Your task to perform on an android device: delete browsing data in the chrome app Image 0: 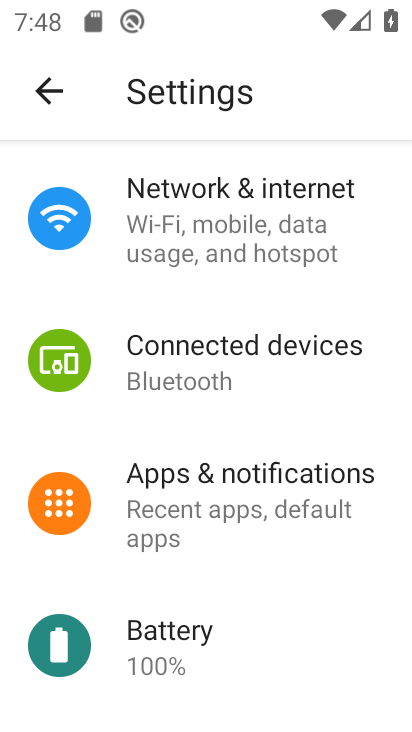
Step 0: press home button
Your task to perform on an android device: delete browsing data in the chrome app Image 1: 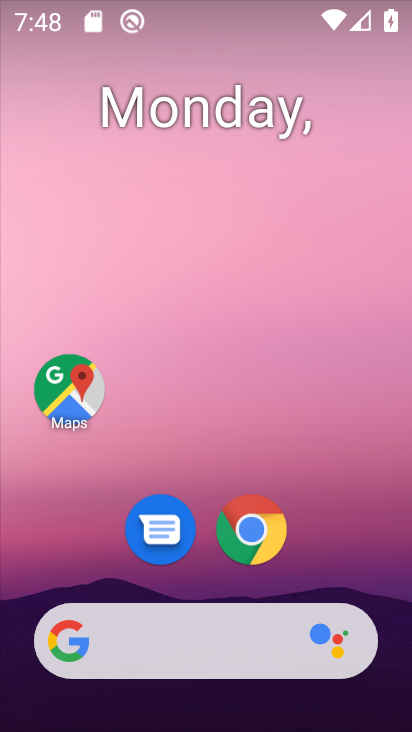
Step 1: click (258, 533)
Your task to perform on an android device: delete browsing data in the chrome app Image 2: 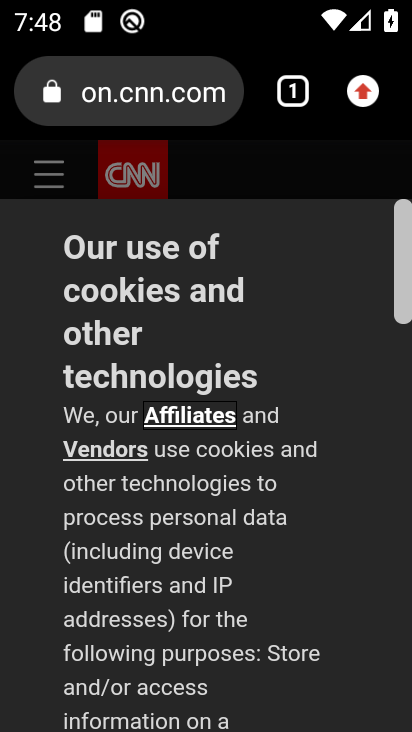
Step 2: click (362, 78)
Your task to perform on an android device: delete browsing data in the chrome app Image 3: 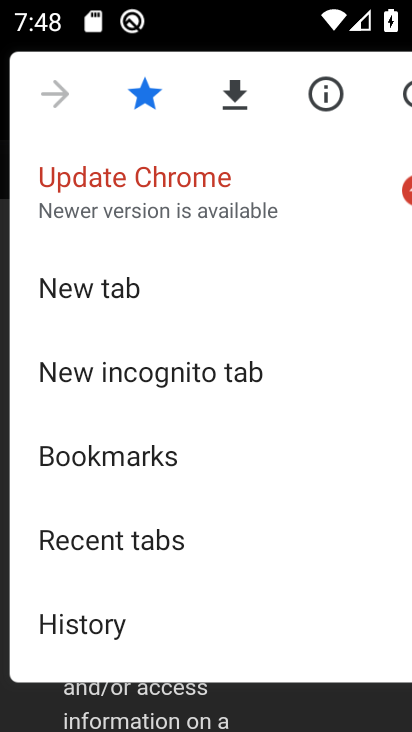
Step 3: click (81, 632)
Your task to perform on an android device: delete browsing data in the chrome app Image 4: 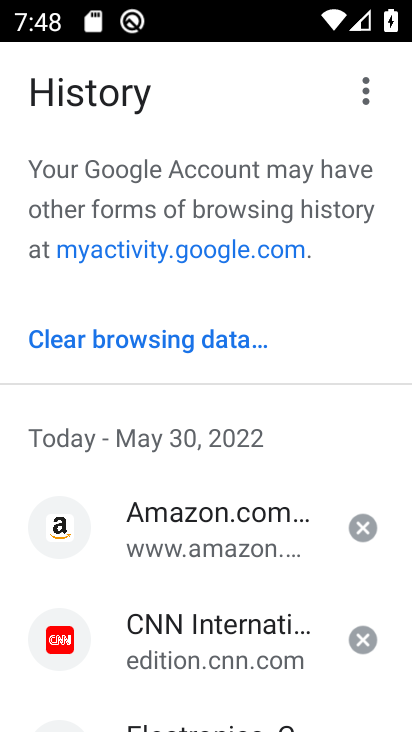
Step 4: click (148, 336)
Your task to perform on an android device: delete browsing data in the chrome app Image 5: 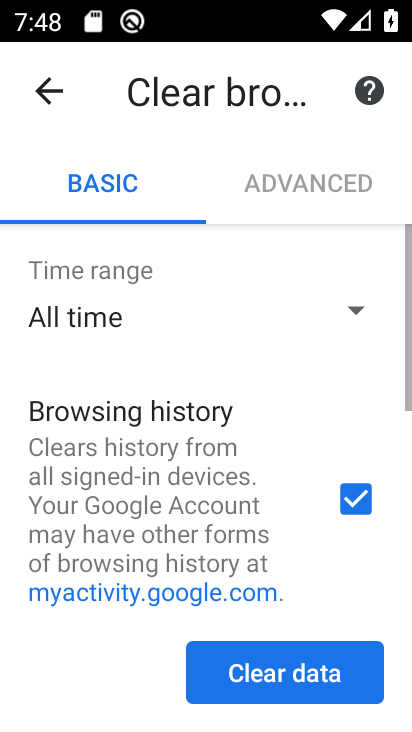
Step 5: click (267, 666)
Your task to perform on an android device: delete browsing data in the chrome app Image 6: 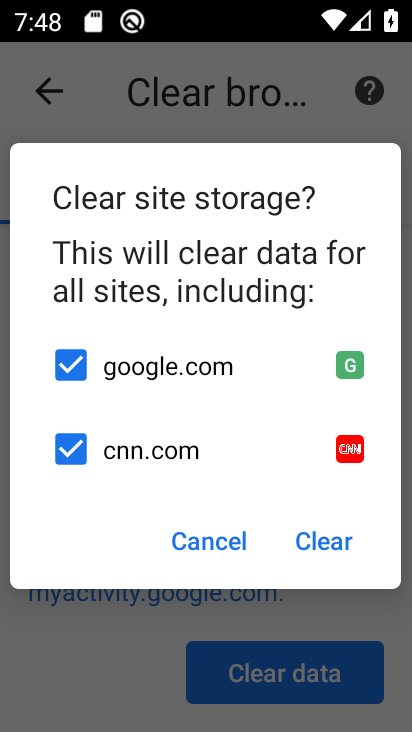
Step 6: click (327, 542)
Your task to perform on an android device: delete browsing data in the chrome app Image 7: 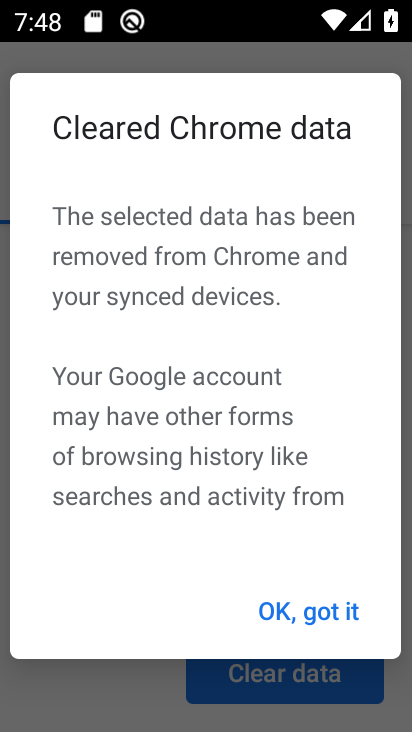
Step 7: click (331, 615)
Your task to perform on an android device: delete browsing data in the chrome app Image 8: 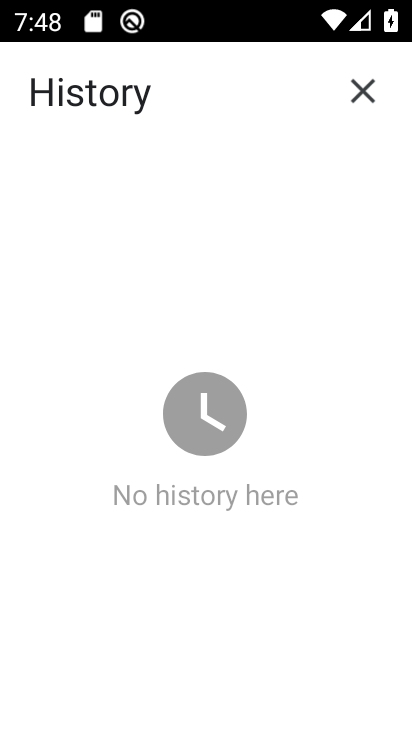
Step 8: task complete